Your task to perform on an android device: toggle translation in the chrome app Image 0: 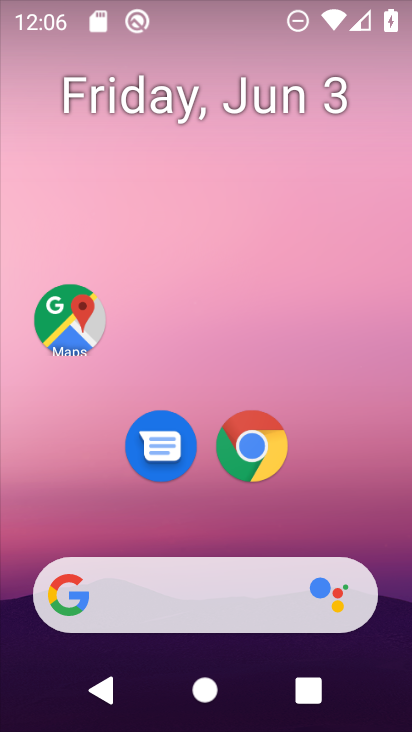
Step 0: drag from (270, 599) to (225, 161)
Your task to perform on an android device: toggle translation in the chrome app Image 1: 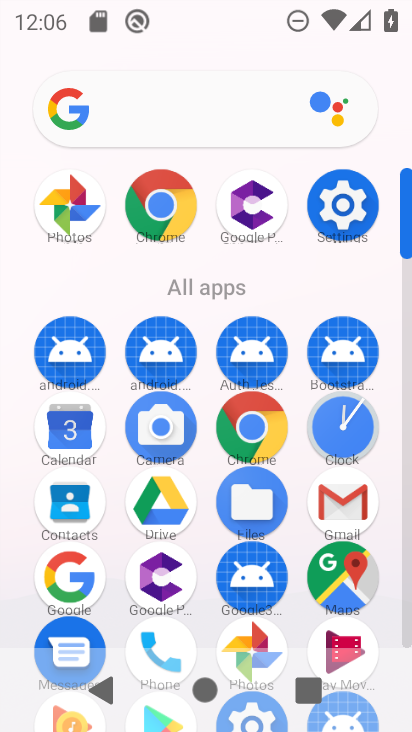
Step 1: click (164, 199)
Your task to perform on an android device: toggle translation in the chrome app Image 2: 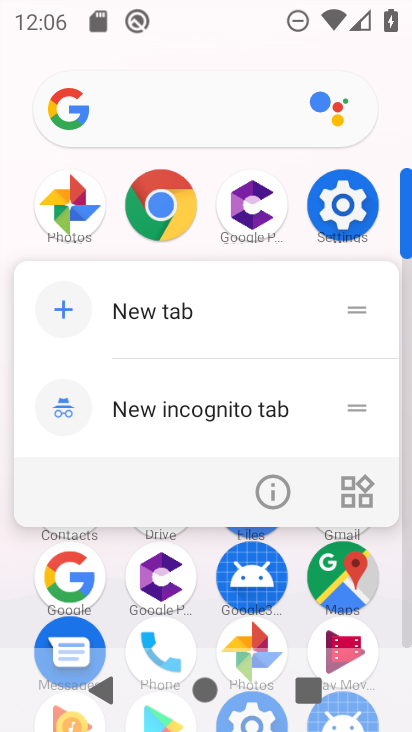
Step 2: click (164, 199)
Your task to perform on an android device: toggle translation in the chrome app Image 3: 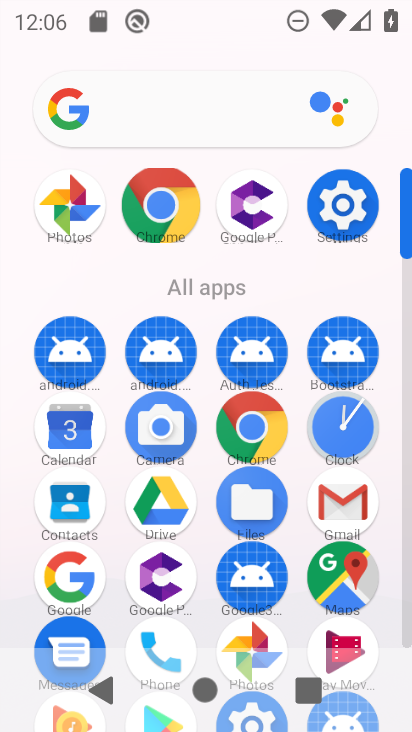
Step 3: click (165, 200)
Your task to perform on an android device: toggle translation in the chrome app Image 4: 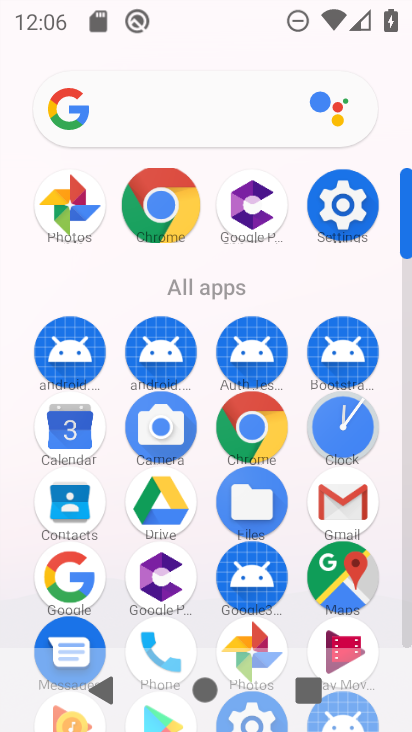
Step 4: click (167, 201)
Your task to perform on an android device: toggle translation in the chrome app Image 5: 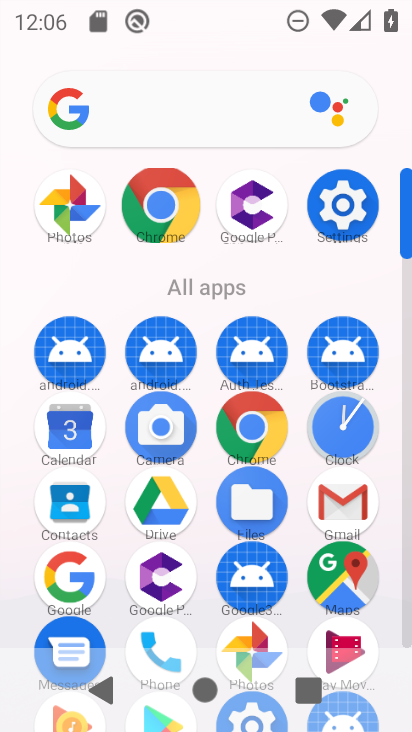
Step 5: click (167, 201)
Your task to perform on an android device: toggle translation in the chrome app Image 6: 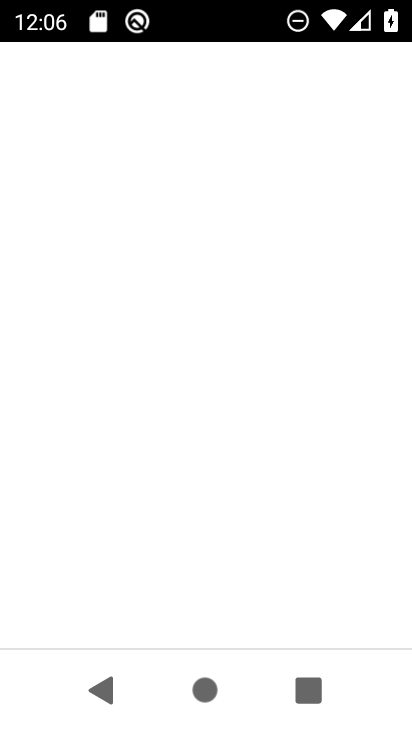
Step 6: click (166, 204)
Your task to perform on an android device: toggle translation in the chrome app Image 7: 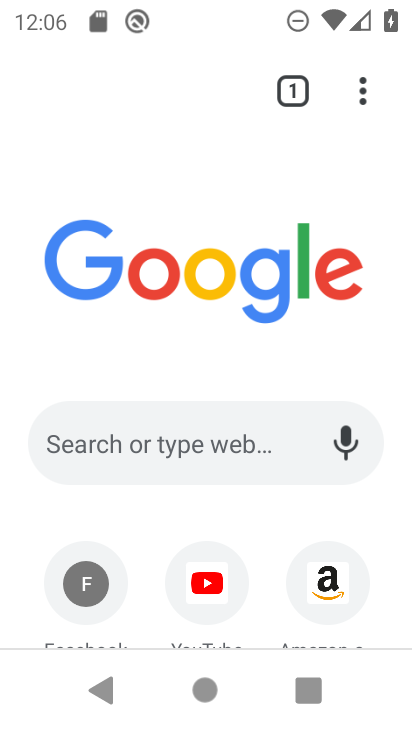
Step 7: drag from (365, 96) to (84, 480)
Your task to perform on an android device: toggle translation in the chrome app Image 8: 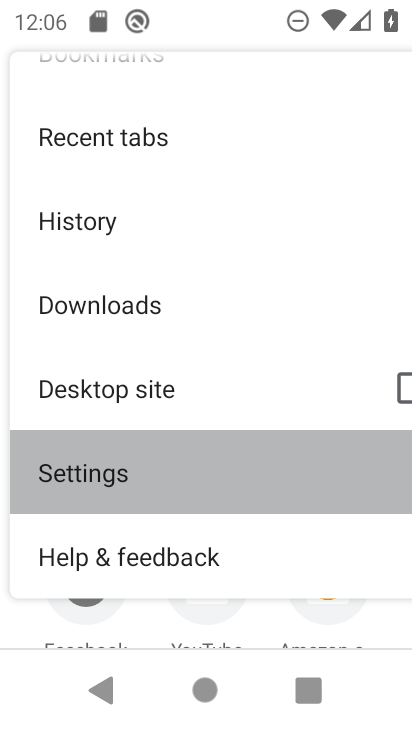
Step 8: click (84, 480)
Your task to perform on an android device: toggle translation in the chrome app Image 9: 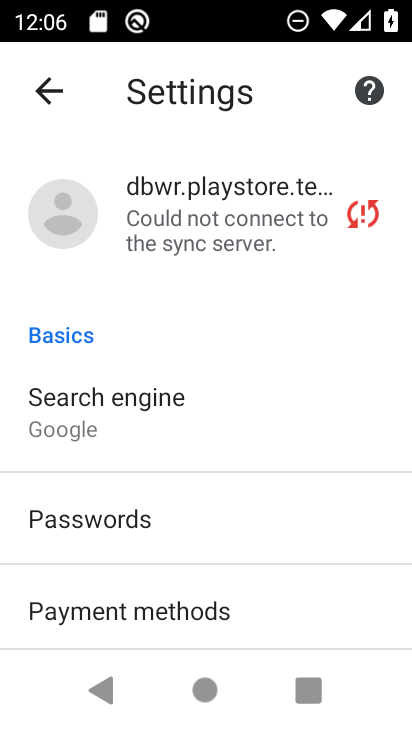
Step 9: drag from (289, 536) to (247, 197)
Your task to perform on an android device: toggle translation in the chrome app Image 10: 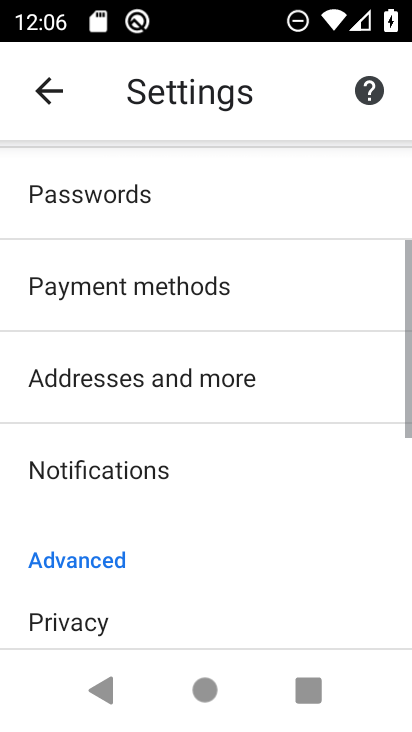
Step 10: drag from (309, 408) to (281, 193)
Your task to perform on an android device: toggle translation in the chrome app Image 11: 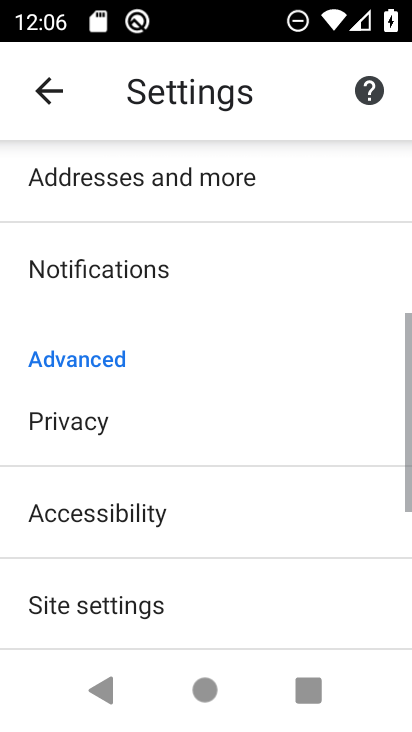
Step 11: drag from (299, 401) to (285, 152)
Your task to perform on an android device: toggle translation in the chrome app Image 12: 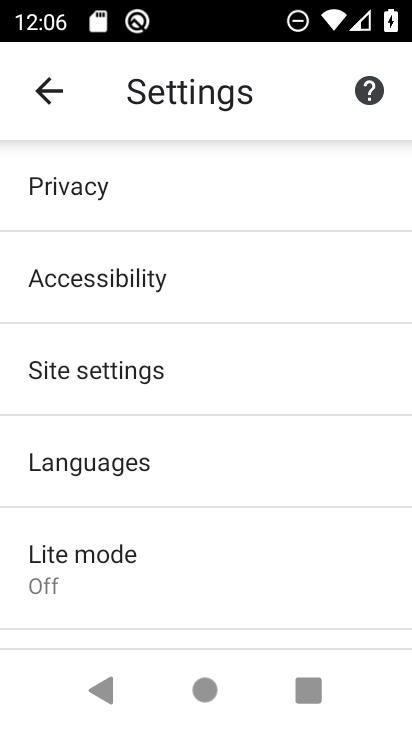
Step 12: click (73, 362)
Your task to perform on an android device: toggle translation in the chrome app Image 13: 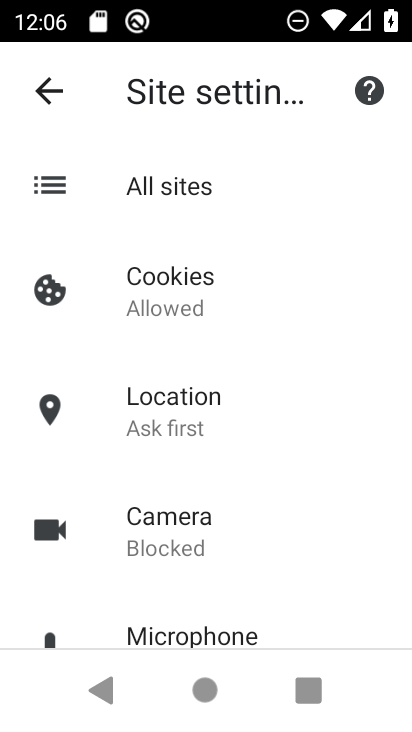
Step 13: click (37, 107)
Your task to perform on an android device: toggle translation in the chrome app Image 14: 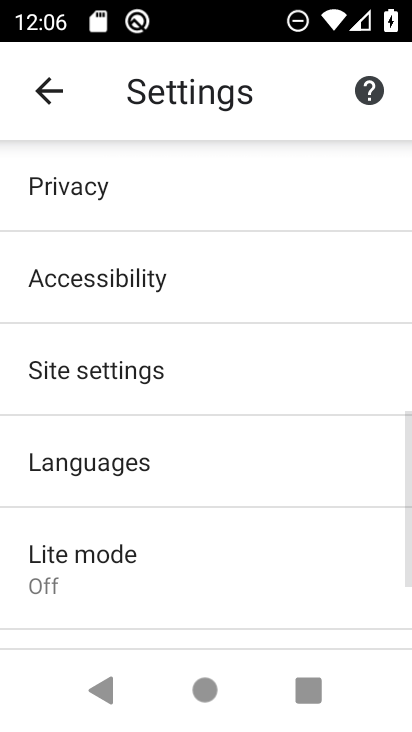
Step 14: click (104, 470)
Your task to perform on an android device: toggle translation in the chrome app Image 15: 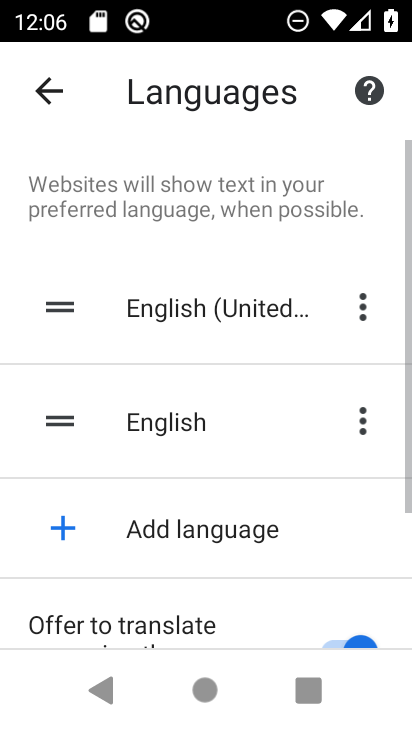
Step 15: drag from (239, 559) to (240, 285)
Your task to perform on an android device: toggle translation in the chrome app Image 16: 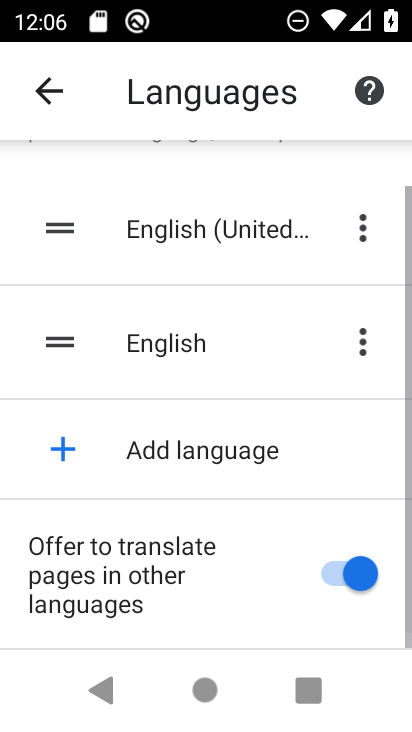
Step 16: drag from (263, 461) to (249, 199)
Your task to perform on an android device: toggle translation in the chrome app Image 17: 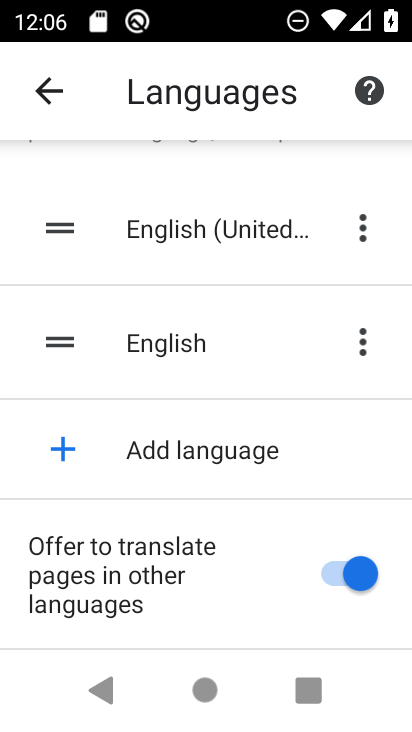
Step 17: click (356, 570)
Your task to perform on an android device: toggle translation in the chrome app Image 18: 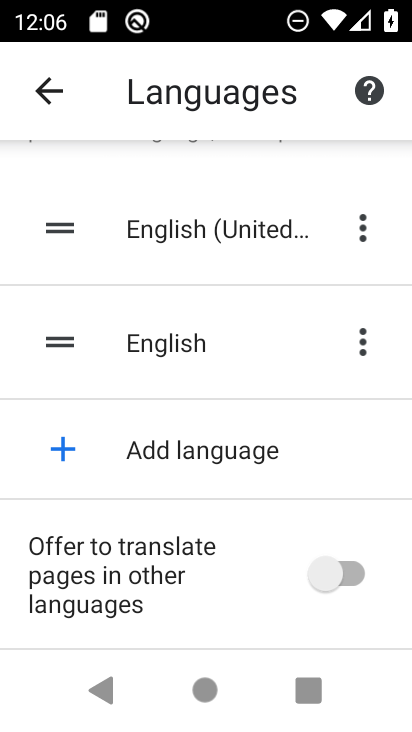
Step 18: task complete